Your task to perform on an android device: Go to network settings Image 0: 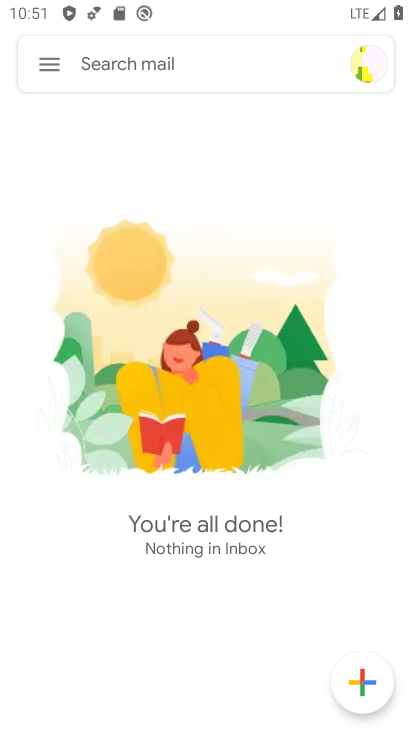
Step 0: press home button
Your task to perform on an android device: Go to network settings Image 1: 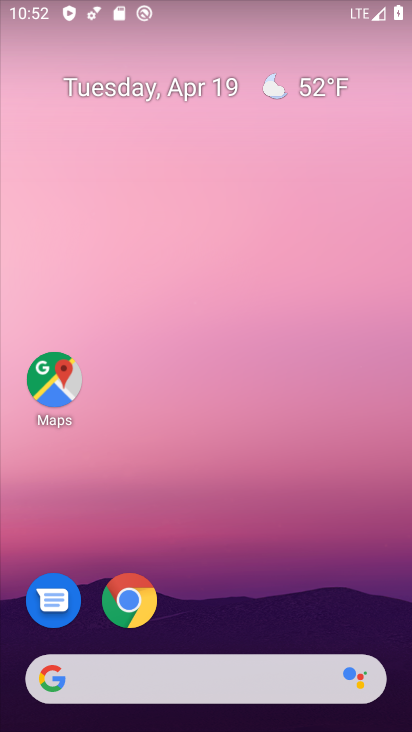
Step 1: drag from (225, 455) to (318, 1)
Your task to perform on an android device: Go to network settings Image 2: 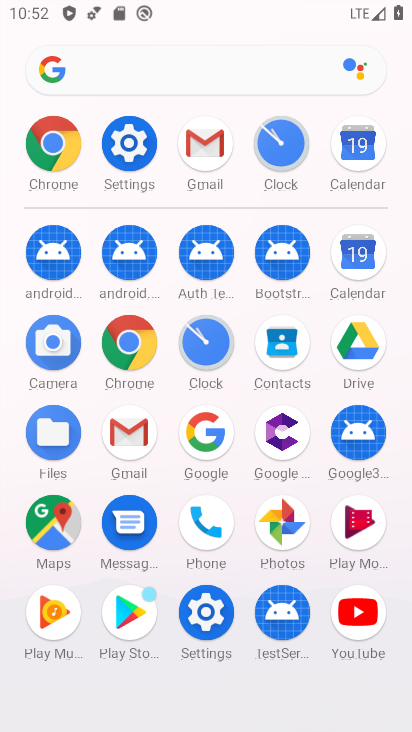
Step 2: click (123, 146)
Your task to perform on an android device: Go to network settings Image 3: 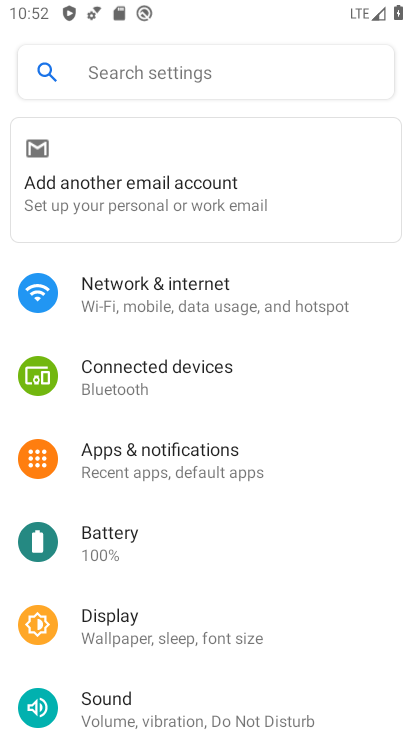
Step 3: click (177, 332)
Your task to perform on an android device: Go to network settings Image 4: 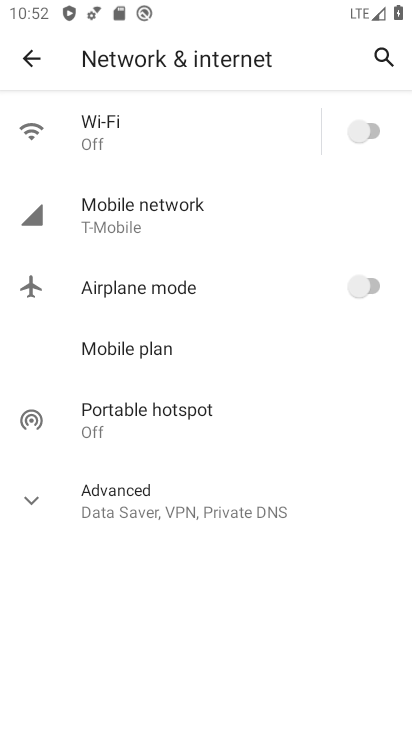
Step 4: click (189, 211)
Your task to perform on an android device: Go to network settings Image 5: 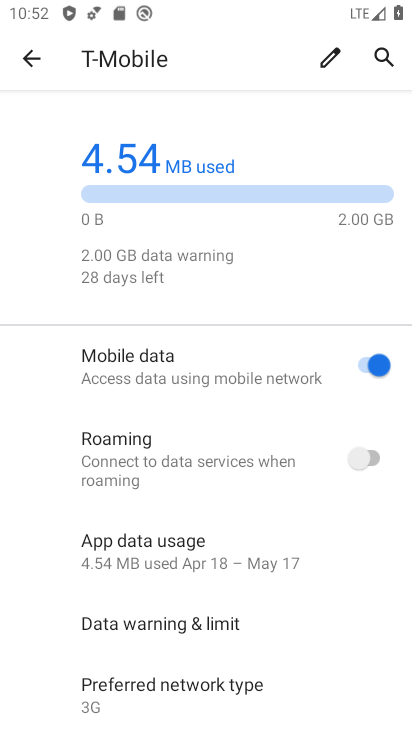
Step 5: drag from (334, 601) to (411, 246)
Your task to perform on an android device: Go to network settings Image 6: 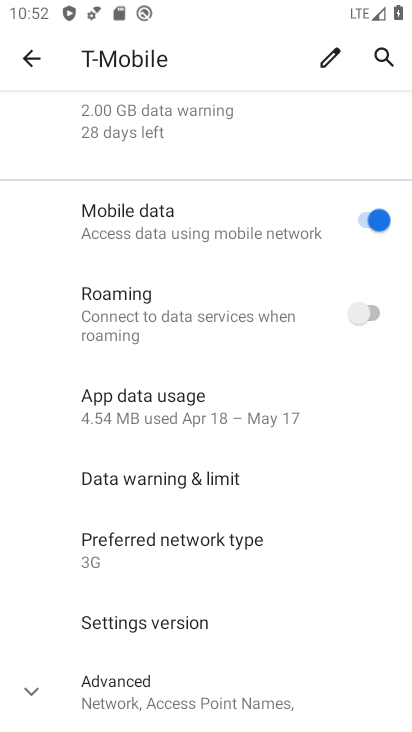
Step 6: click (114, 704)
Your task to perform on an android device: Go to network settings Image 7: 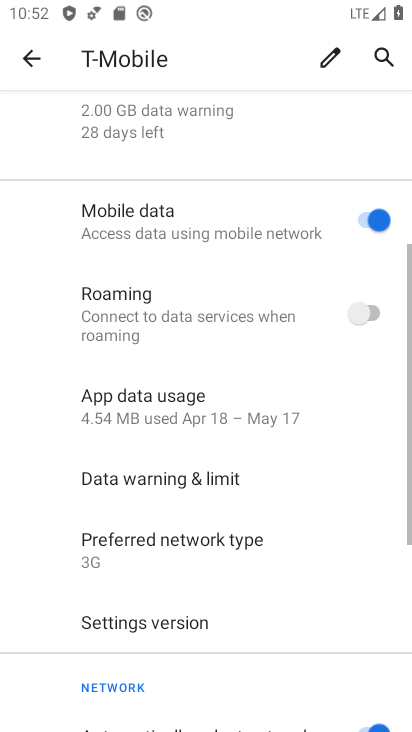
Step 7: task complete